Your task to perform on an android device: check storage Image 0: 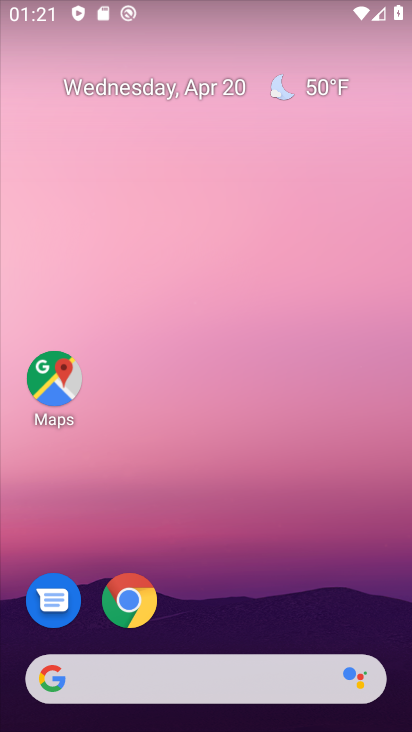
Step 0: click (281, 88)
Your task to perform on an android device: check storage Image 1: 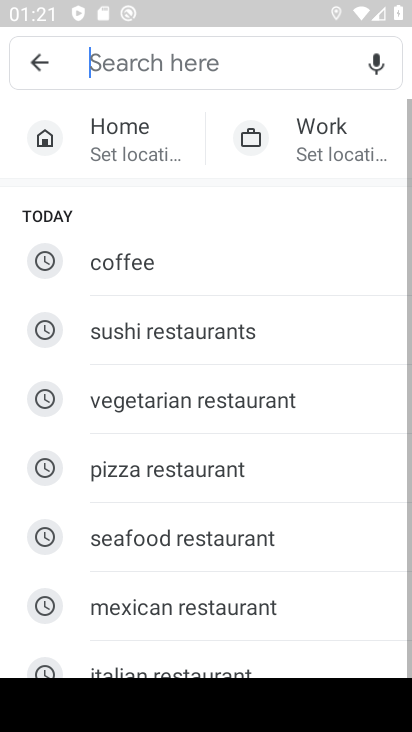
Step 1: press home button
Your task to perform on an android device: check storage Image 2: 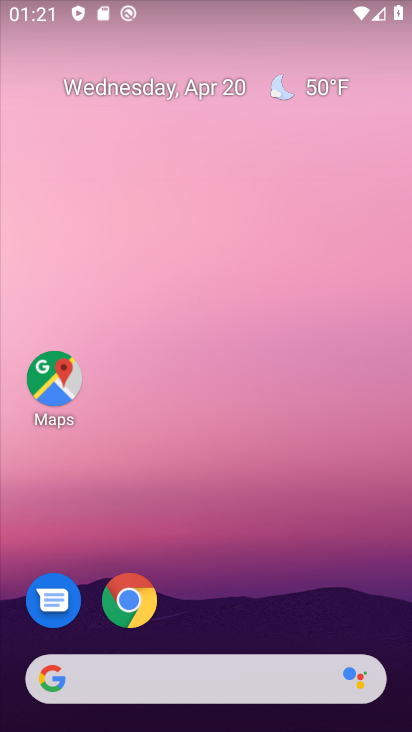
Step 2: drag from (280, 605) to (261, 84)
Your task to perform on an android device: check storage Image 3: 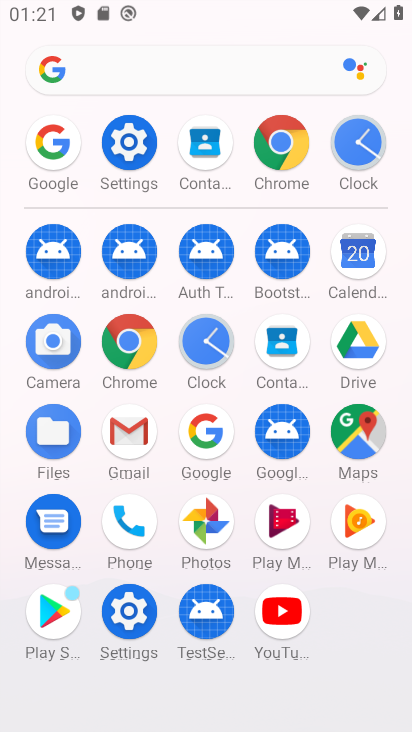
Step 3: click (117, 144)
Your task to perform on an android device: check storage Image 4: 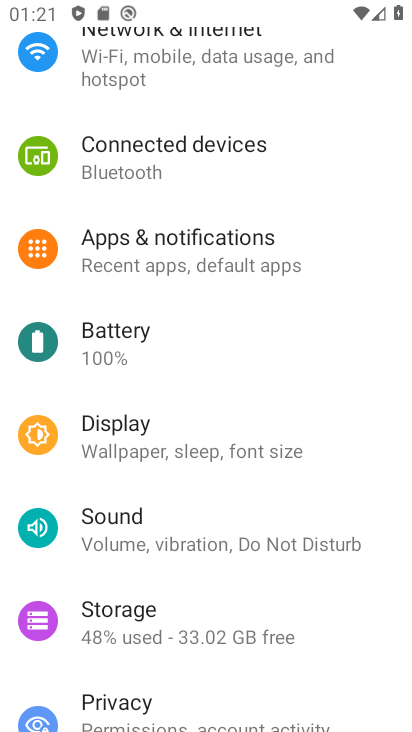
Step 4: click (208, 612)
Your task to perform on an android device: check storage Image 5: 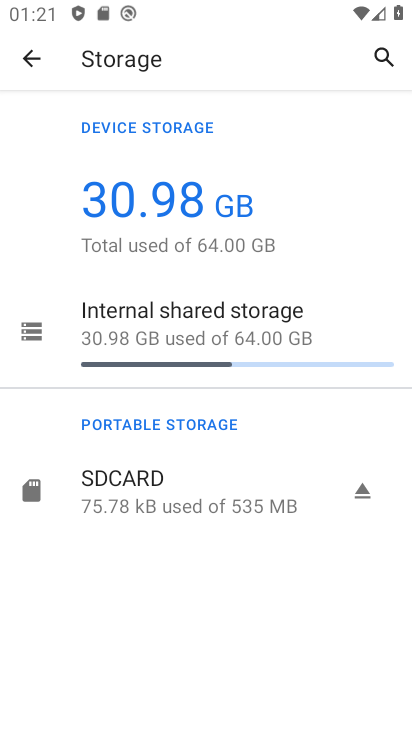
Step 5: task complete